Your task to perform on an android device: Search for seafood restaurants on Google Maps Image 0: 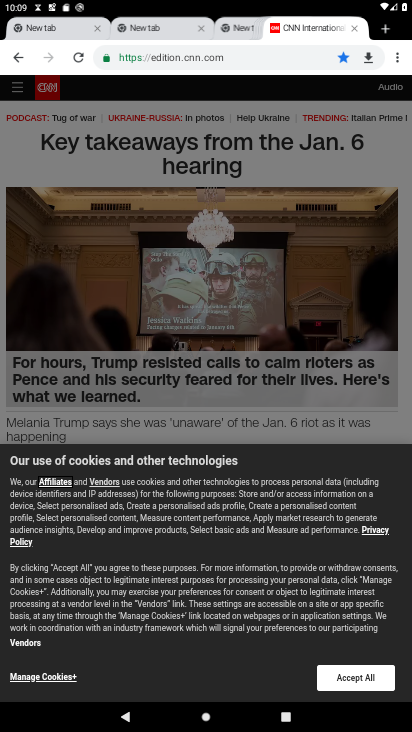
Step 0: press home button
Your task to perform on an android device: Search for seafood restaurants on Google Maps Image 1: 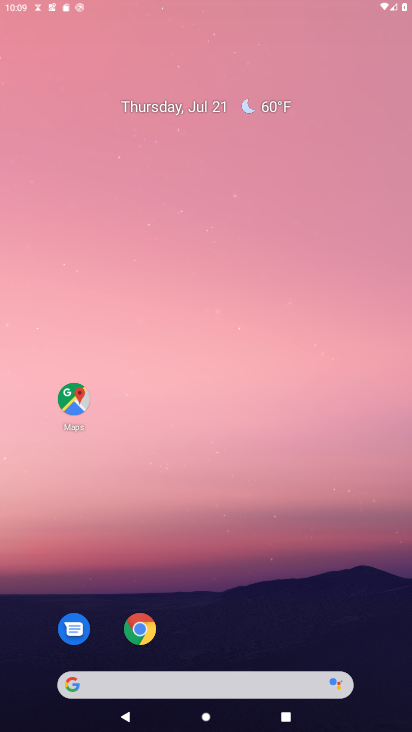
Step 1: press home button
Your task to perform on an android device: Search for seafood restaurants on Google Maps Image 2: 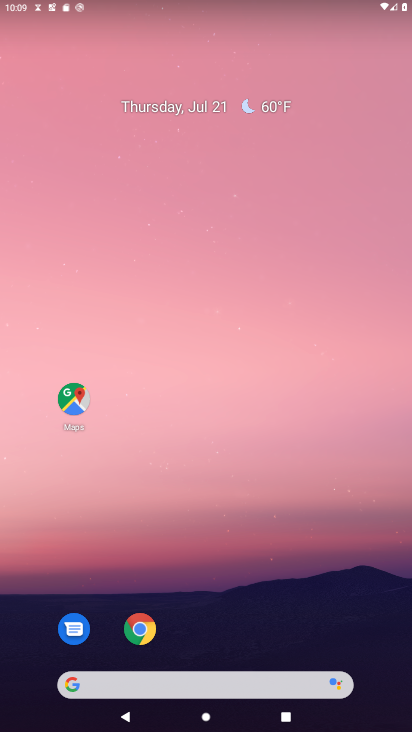
Step 2: drag from (247, 614) to (239, 200)
Your task to perform on an android device: Search for seafood restaurants on Google Maps Image 3: 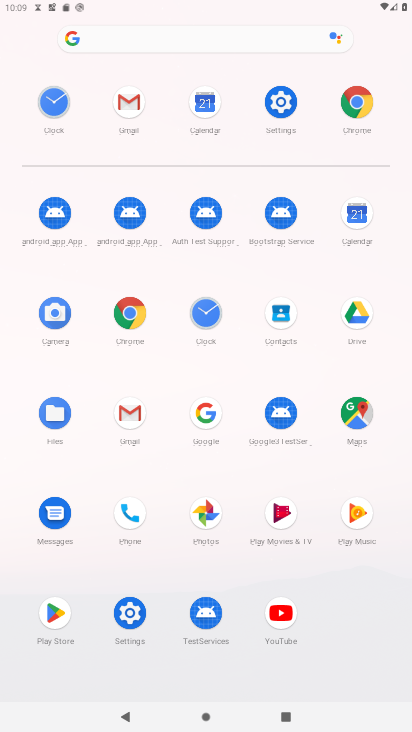
Step 3: click (370, 407)
Your task to perform on an android device: Search for seafood restaurants on Google Maps Image 4: 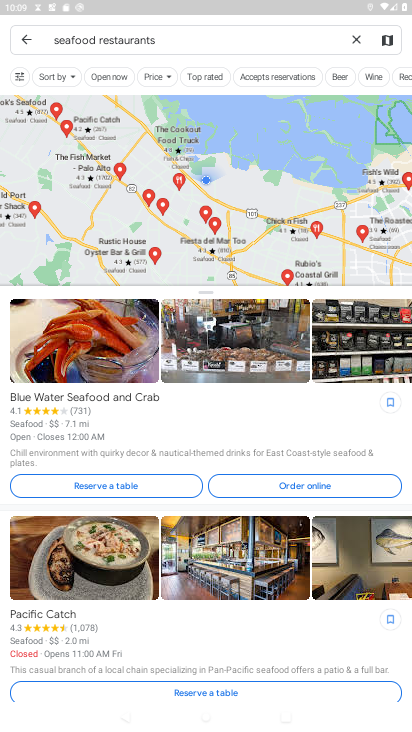
Step 4: task complete